Your task to perform on an android device: change keyboard looks Image 0: 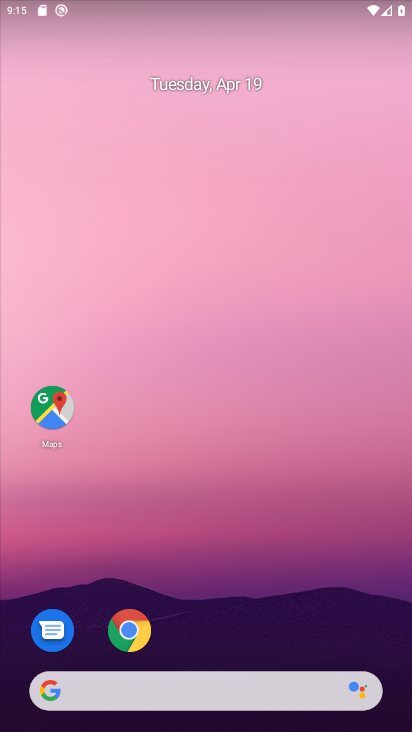
Step 0: drag from (287, 637) to (306, 131)
Your task to perform on an android device: change keyboard looks Image 1: 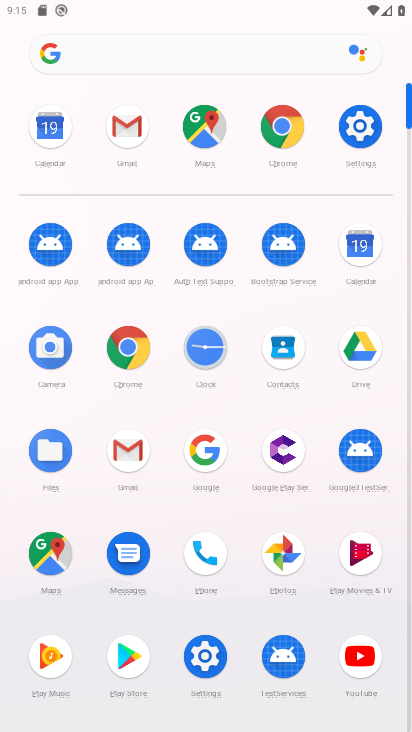
Step 1: click (370, 140)
Your task to perform on an android device: change keyboard looks Image 2: 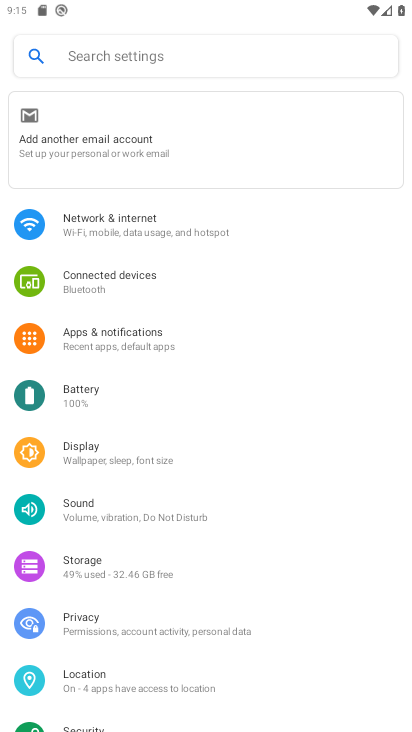
Step 2: drag from (230, 613) to (250, 243)
Your task to perform on an android device: change keyboard looks Image 3: 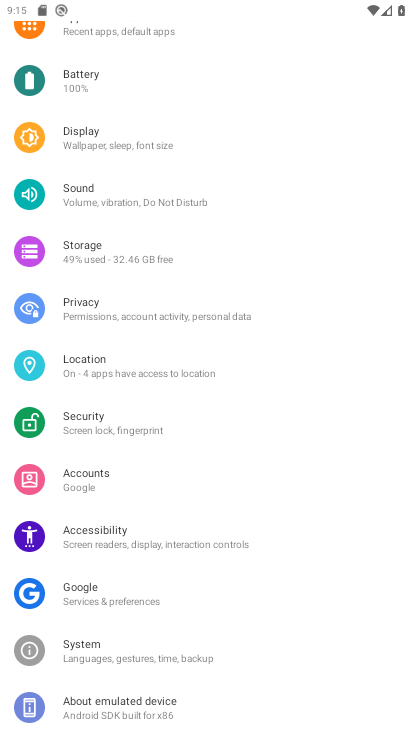
Step 3: click (151, 662)
Your task to perform on an android device: change keyboard looks Image 4: 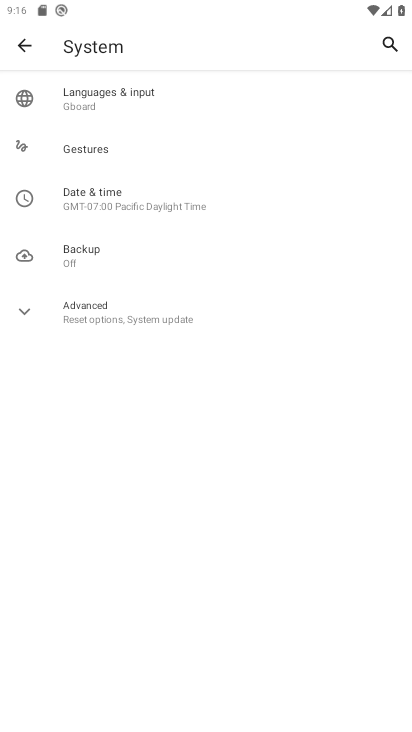
Step 4: click (185, 100)
Your task to perform on an android device: change keyboard looks Image 5: 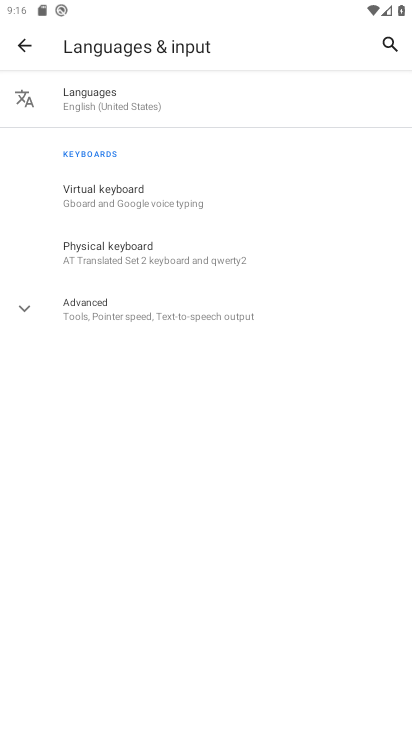
Step 5: click (197, 214)
Your task to perform on an android device: change keyboard looks Image 6: 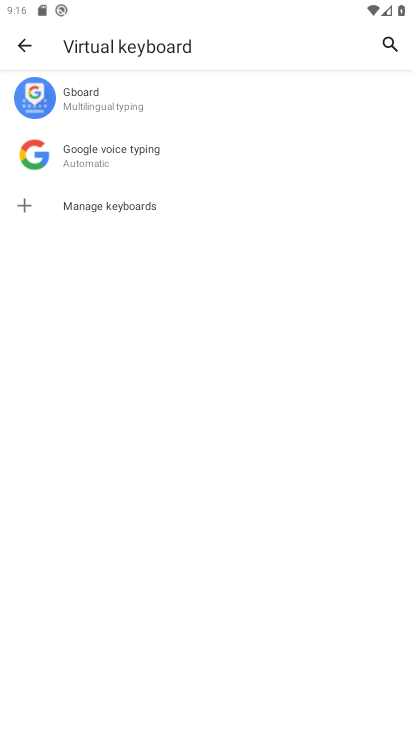
Step 6: click (230, 90)
Your task to perform on an android device: change keyboard looks Image 7: 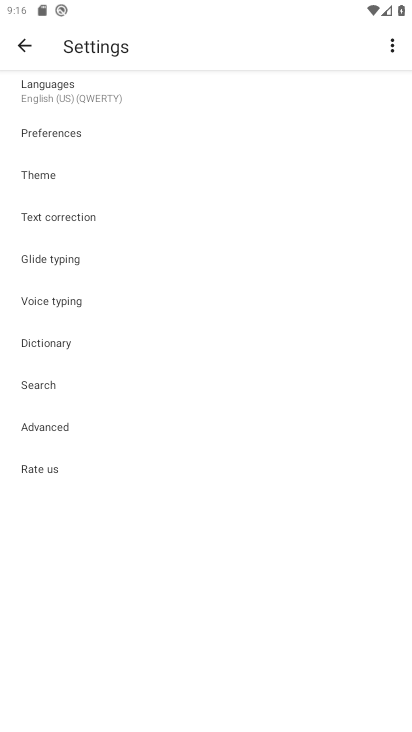
Step 7: click (74, 172)
Your task to perform on an android device: change keyboard looks Image 8: 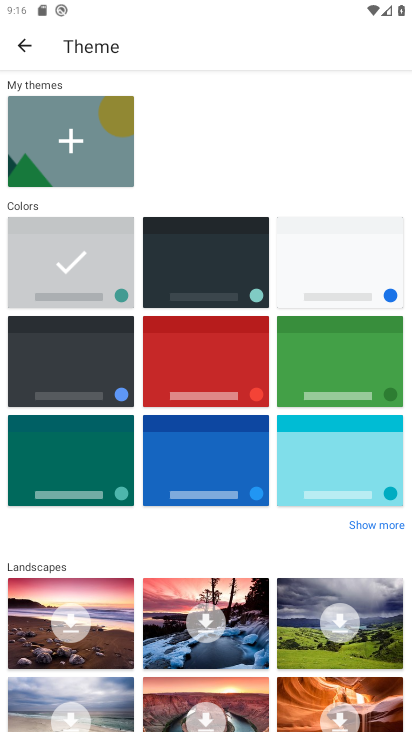
Step 8: click (241, 259)
Your task to perform on an android device: change keyboard looks Image 9: 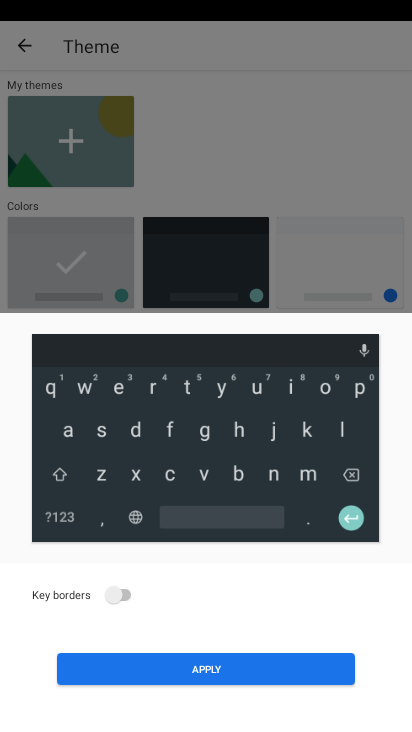
Step 9: click (262, 665)
Your task to perform on an android device: change keyboard looks Image 10: 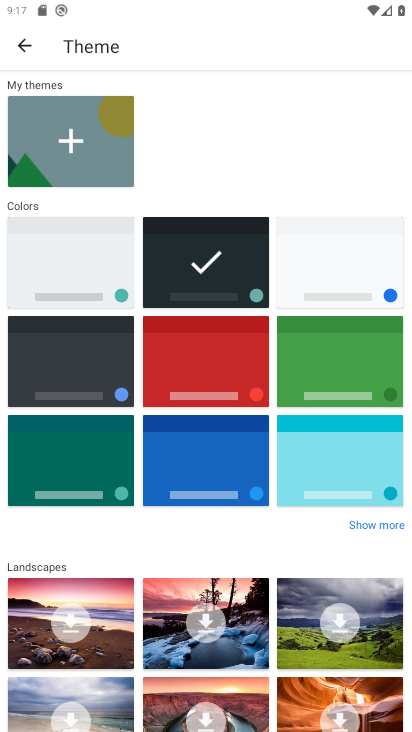
Step 10: task complete